Your task to perform on an android device: Open Google Chrome and click the shortcut for Amazon.com Image 0: 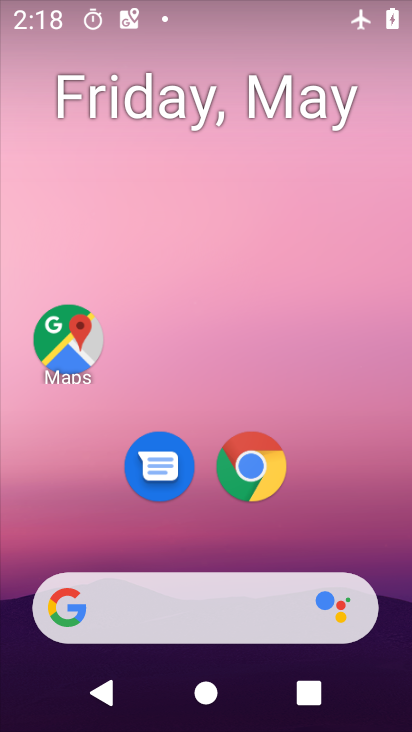
Step 0: drag from (386, 520) to (410, 52)
Your task to perform on an android device: Open Google Chrome and click the shortcut for Amazon.com Image 1: 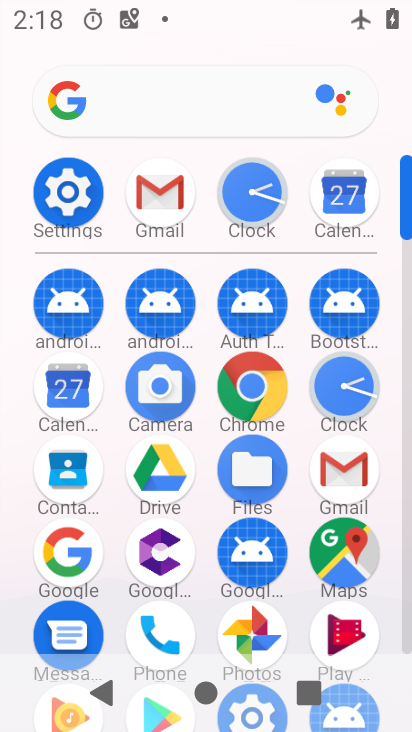
Step 1: click (244, 381)
Your task to perform on an android device: Open Google Chrome and click the shortcut for Amazon.com Image 2: 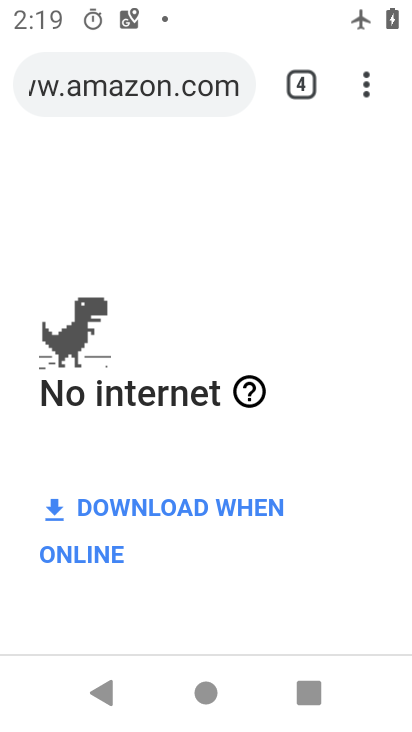
Step 2: task complete